Your task to perform on an android device: turn off airplane mode Image 0: 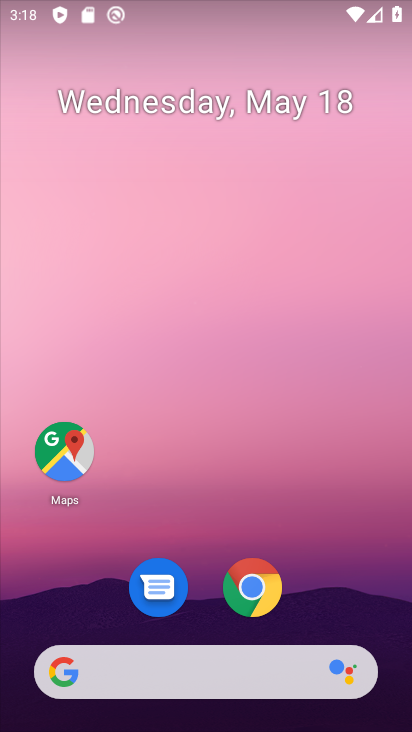
Step 0: drag from (326, 558) to (355, 160)
Your task to perform on an android device: turn off airplane mode Image 1: 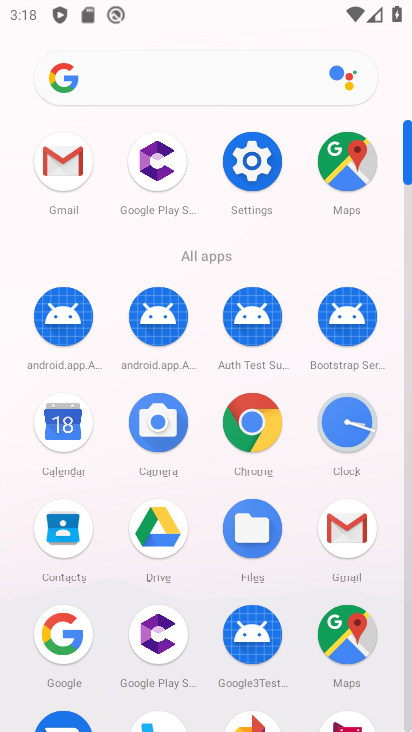
Step 1: click (240, 156)
Your task to perform on an android device: turn off airplane mode Image 2: 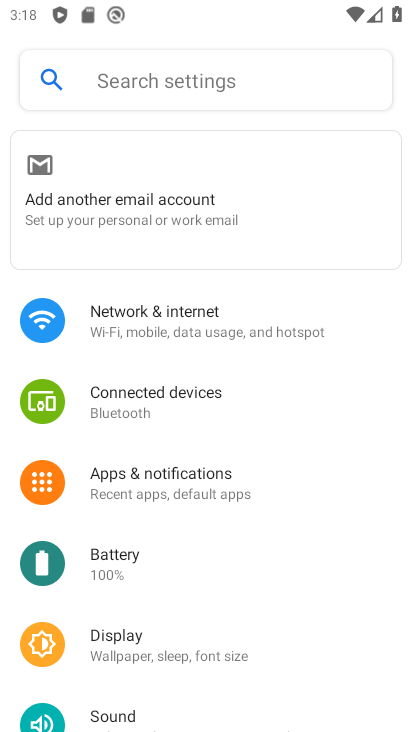
Step 2: click (193, 339)
Your task to perform on an android device: turn off airplane mode Image 3: 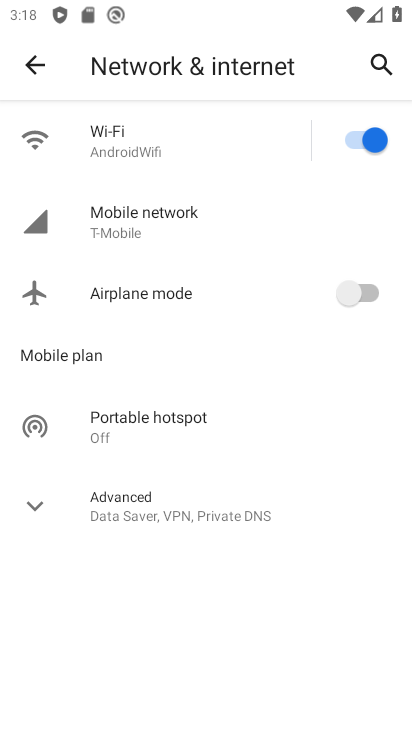
Step 3: task complete